Your task to perform on an android device: Open internet settings Image 0: 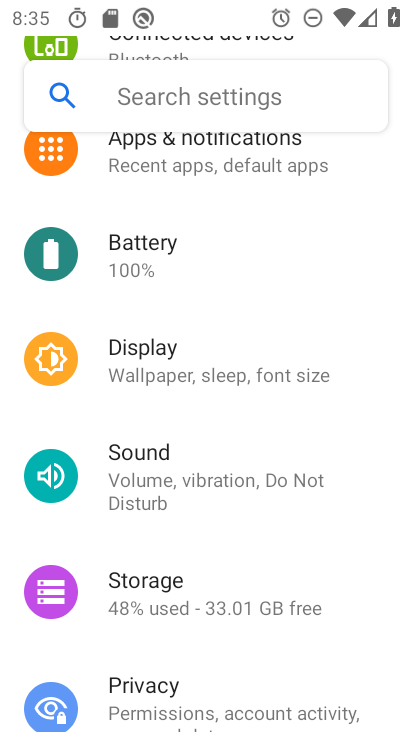
Step 0: drag from (166, 467) to (156, 728)
Your task to perform on an android device: Open internet settings Image 1: 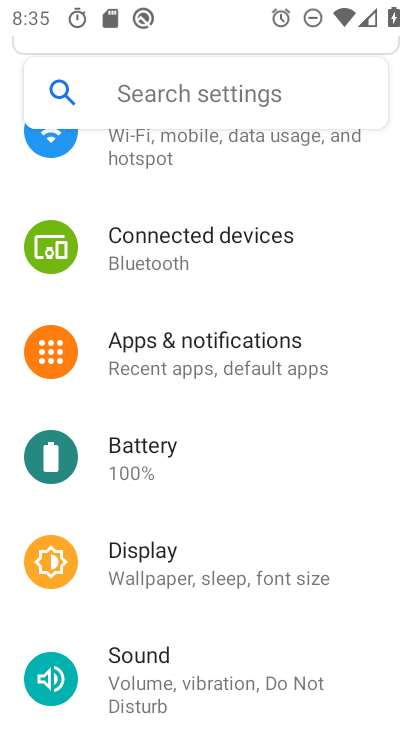
Step 1: drag from (168, 296) to (181, 651)
Your task to perform on an android device: Open internet settings Image 2: 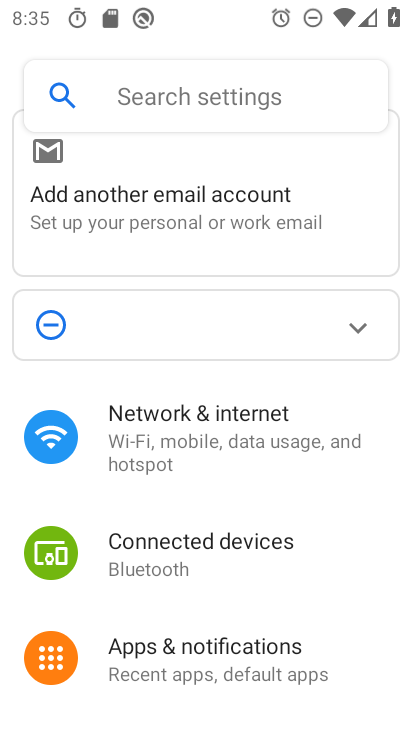
Step 2: click (178, 425)
Your task to perform on an android device: Open internet settings Image 3: 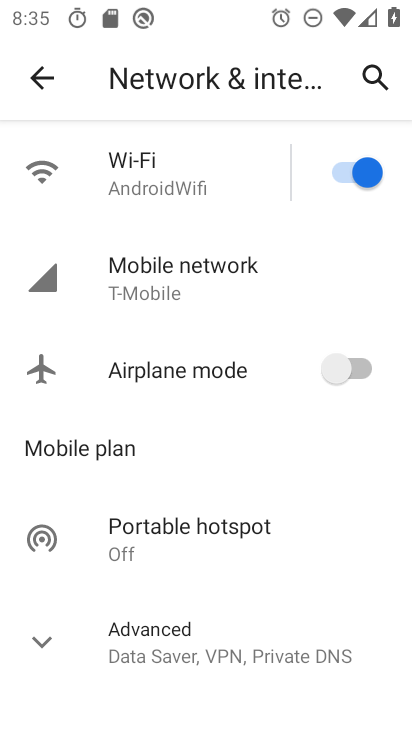
Step 3: task complete